Your task to perform on an android device: visit the assistant section in the google photos Image 0: 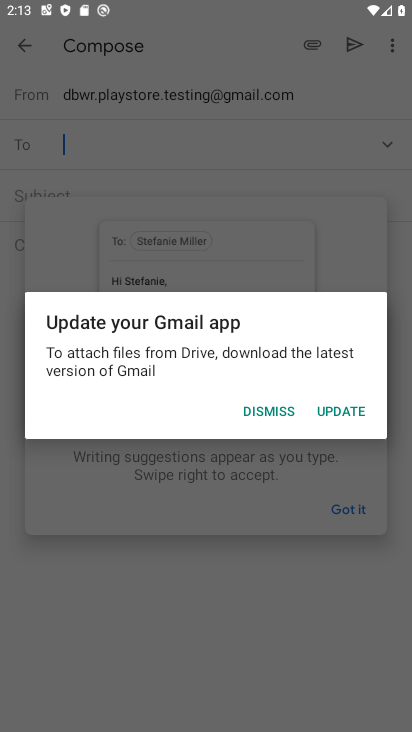
Step 0: press home button
Your task to perform on an android device: visit the assistant section in the google photos Image 1: 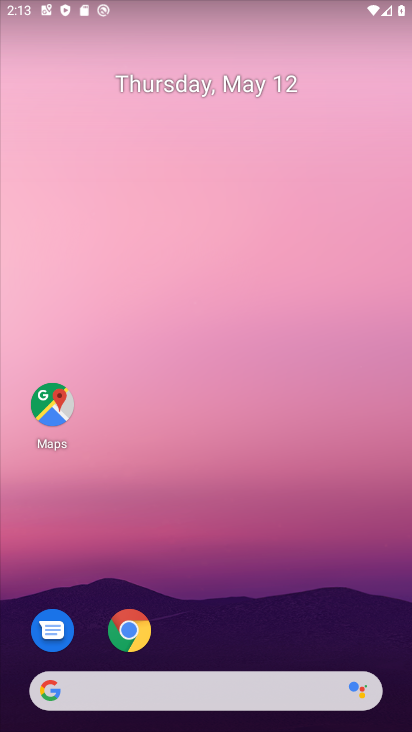
Step 1: drag from (269, 609) to (203, 43)
Your task to perform on an android device: visit the assistant section in the google photos Image 2: 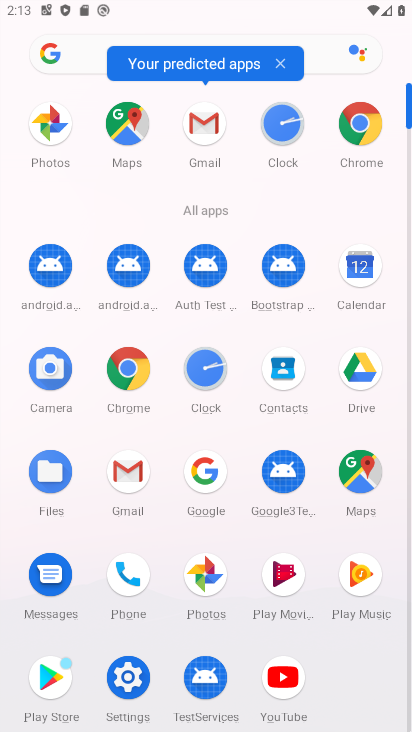
Step 2: click (49, 124)
Your task to perform on an android device: visit the assistant section in the google photos Image 3: 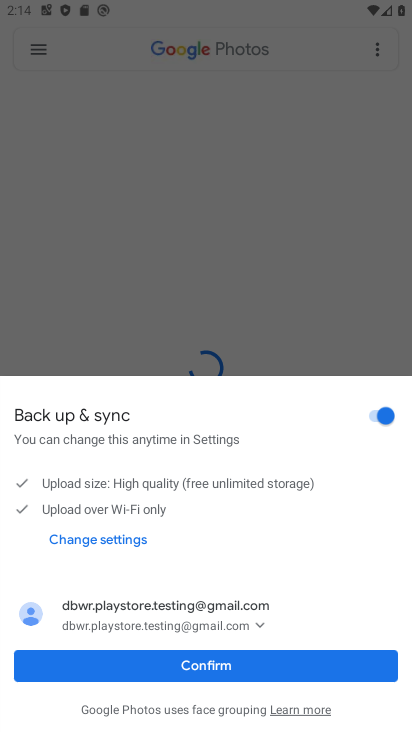
Step 3: click (189, 665)
Your task to perform on an android device: visit the assistant section in the google photos Image 4: 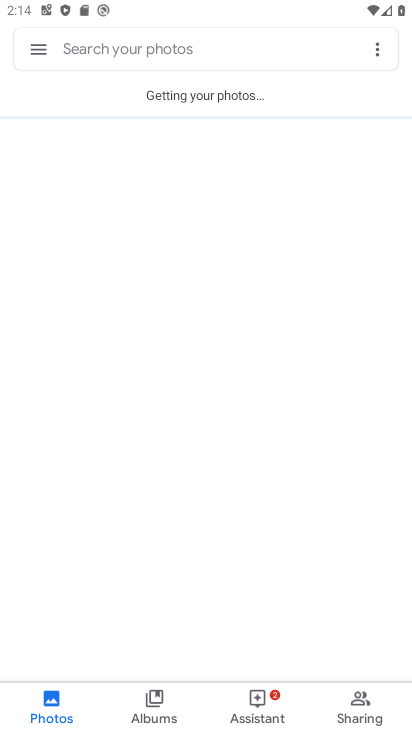
Step 4: click (262, 702)
Your task to perform on an android device: visit the assistant section in the google photos Image 5: 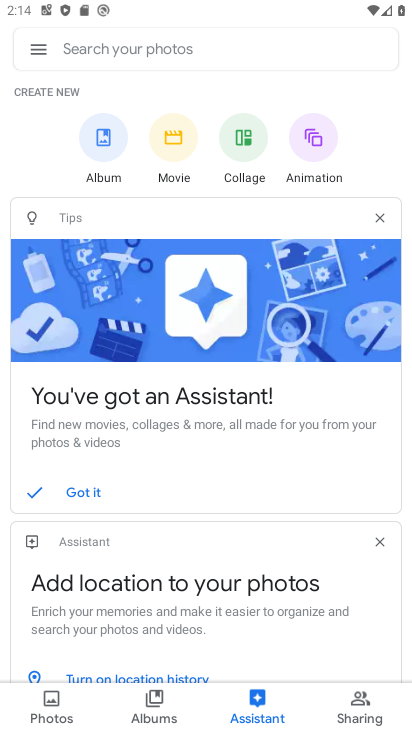
Step 5: task complete